Your task to perform on an android device: Open CNN.com Image 0: 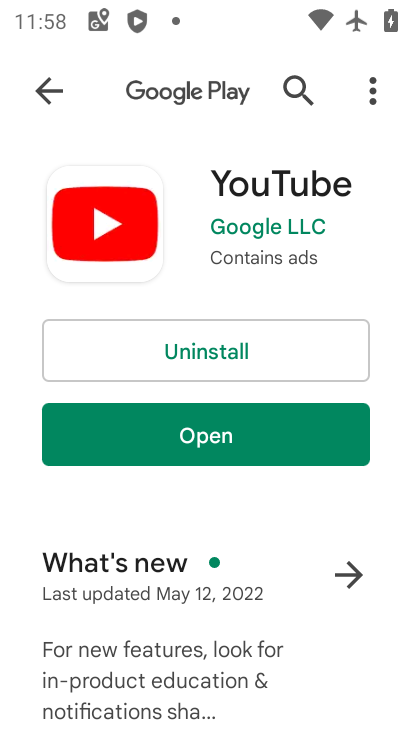
Step 0: press home button
Your task to perform on an android device: Open CNN.com Image 1: 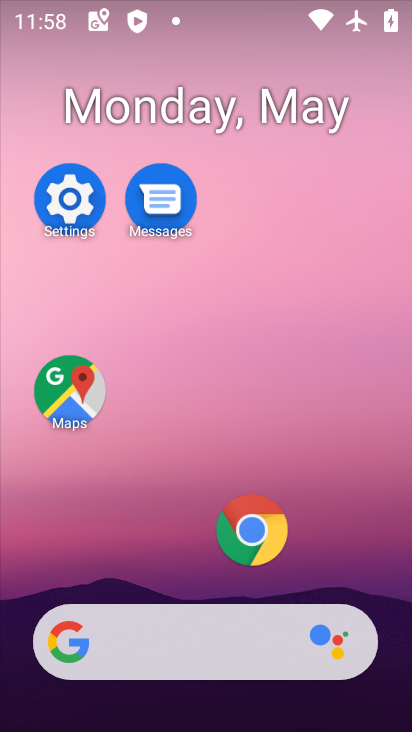
Step 1: drag from (169, 536) to (286, 58)
Your task to perform on an android device: Open CNN.com Image 2: 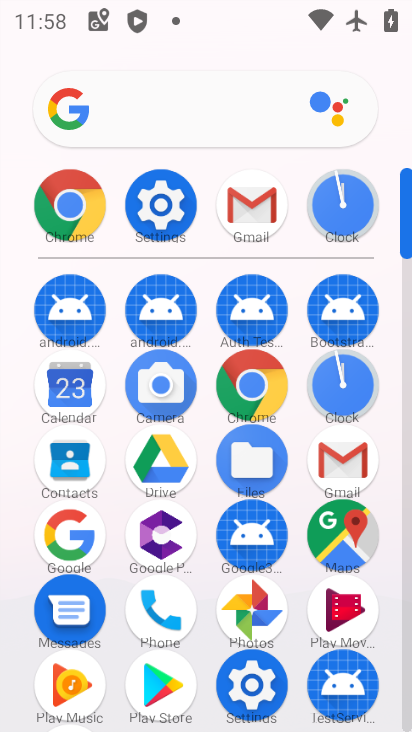
Step 2: click (261, 398)
Your task to perform on an android device: Open CNN.com Image 3: 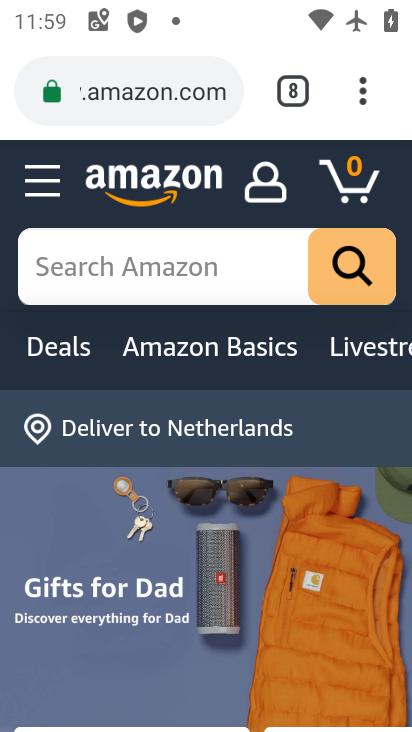
Step 3: click (300, 98)
Your task to perform on an android device: Open CNN.com Image 4: 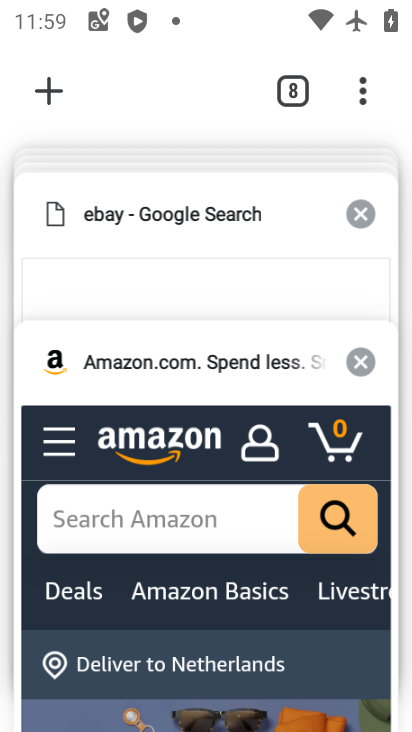
Step 4: click (41, 94)
Your task to perform on an android device: Open CNN.com Image 5: 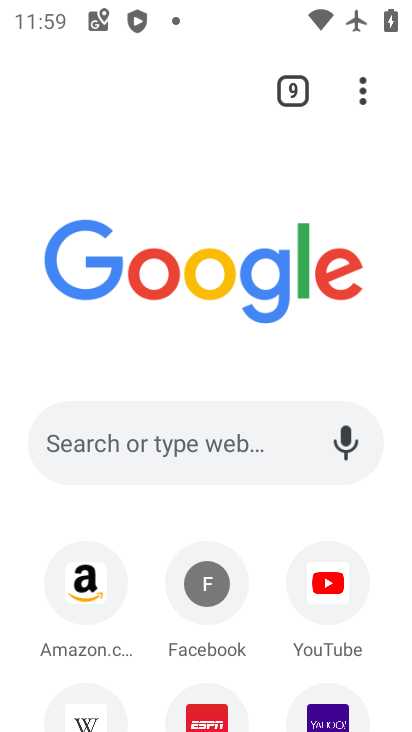
Step 5: click (216, 444)
Your task to perform on an android device: Open CNN.com Image 6: 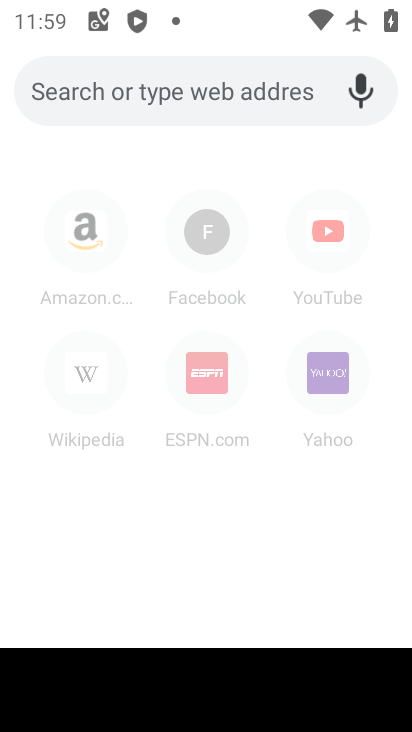
Step 6: type "cnn.com"
Your task to perform on an android device: Open CNN.com Image 7: 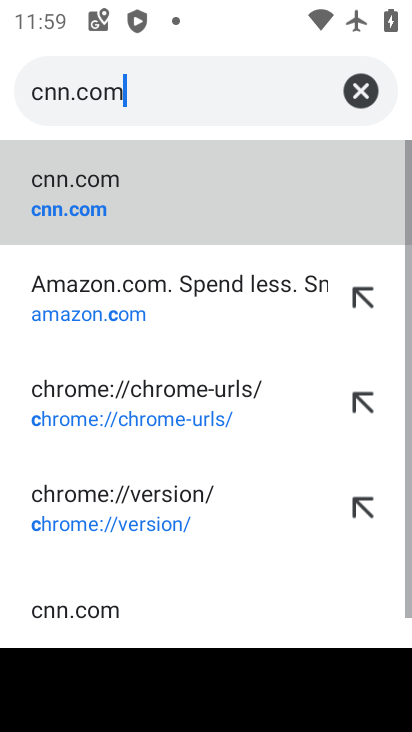
Step 7: type ""
Your task to perform on an android device: Open CNN.com Image 8: 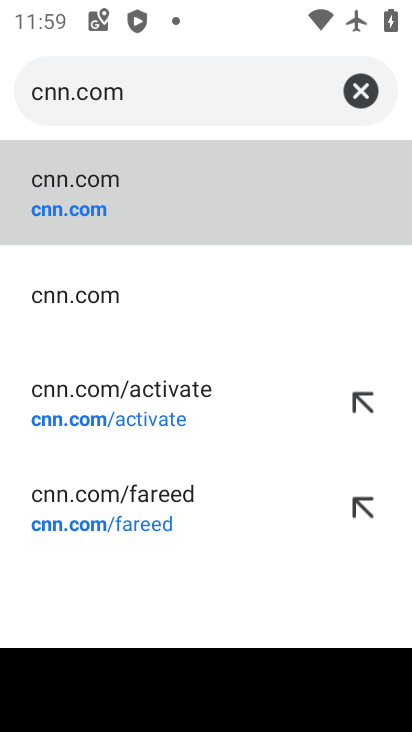
Step 8: click (209, 211)
Your task to perform on an android device: Open CNN.com Image 9: 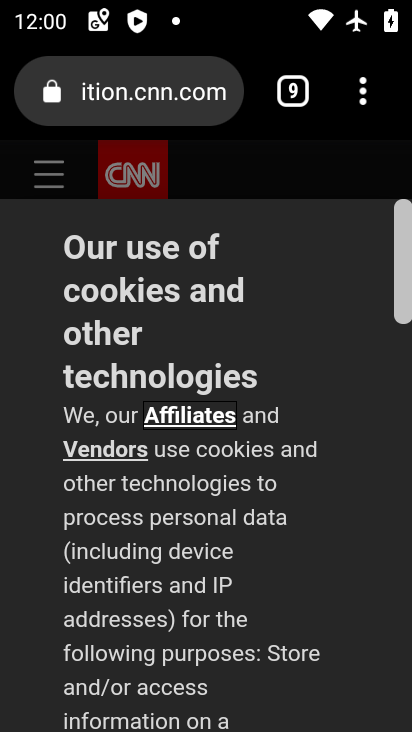
Step 9: task complete